Your task to perform on an android device: delete the emails in spam in the gmail app Image 0: 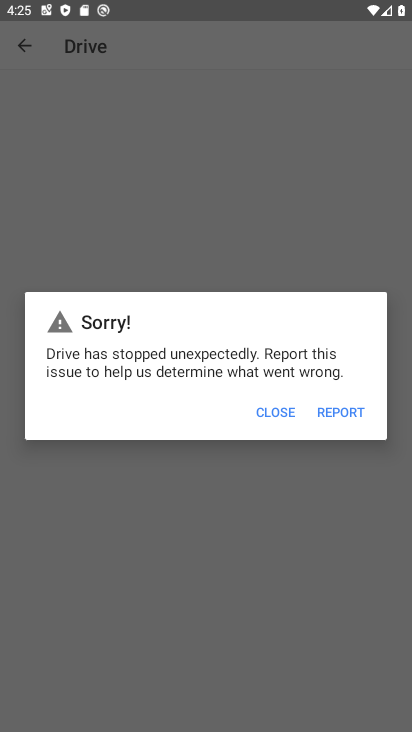
Step 0: press home button
Your task to perform on an android device: delete the emails in spam in the gmail app Image 1: 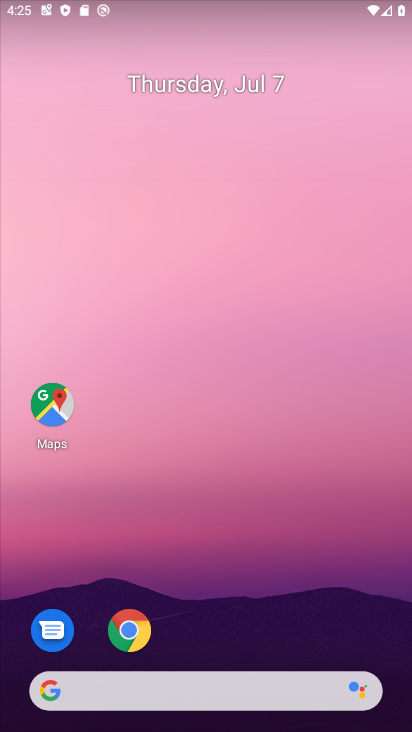
Step 1: drag from (228, 624) to (369, 66)
Your task to perform on an android device: delete the emails in spam in the gmail app Image 2: 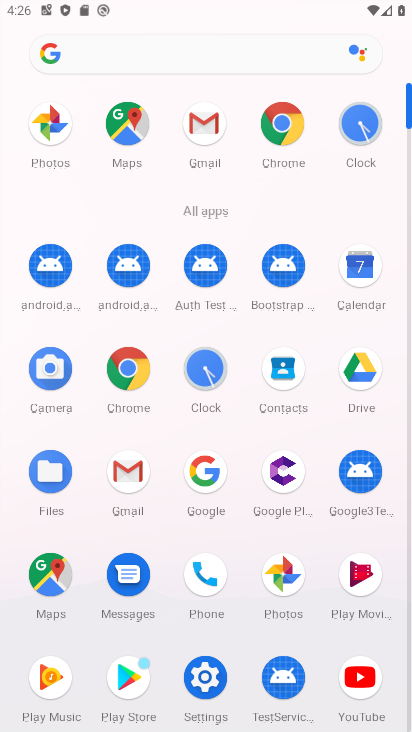
Step 2: click (135, 474)
Your task to perform on an android device: delete the emails in spam in the gmail app Image 3: 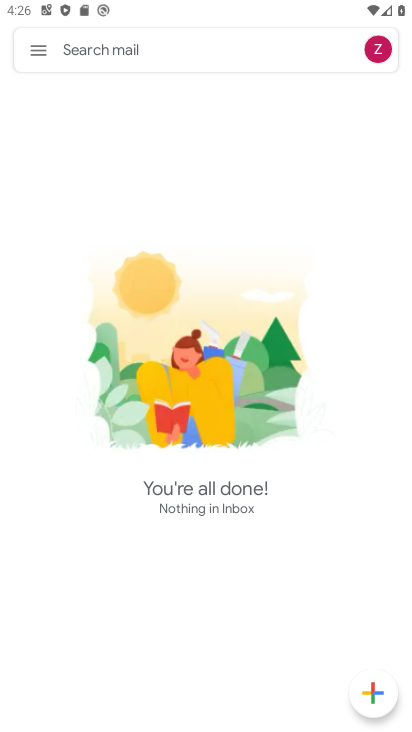
Step 3: task complete